Your task to perform on an android device: turn vacation reply on in the gmail app Image 0: 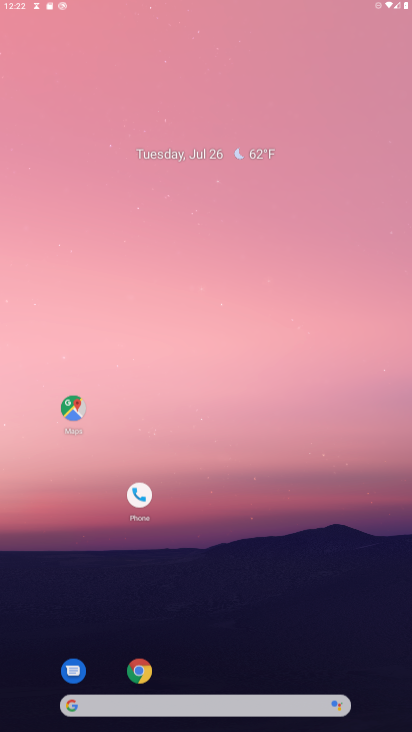
Step 0: press home button
Your task to perform on an android device: turn vacation reply on in the gmail app Image 1: 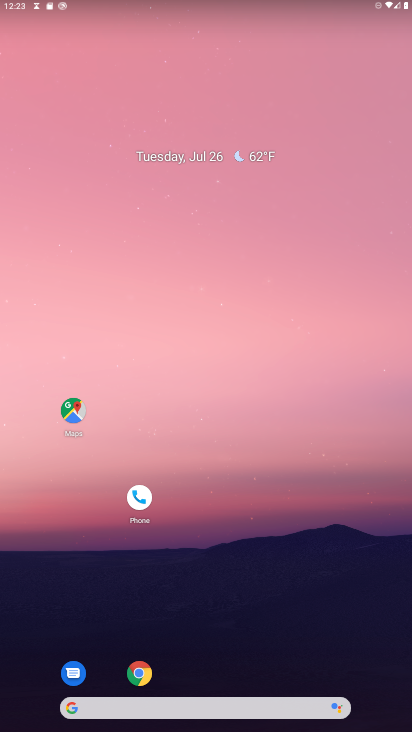
Step 1: drag from (243, 657) to (338, 2)
Your task to perform on an android device: turn vacation reply on in the gmail app Image 2: 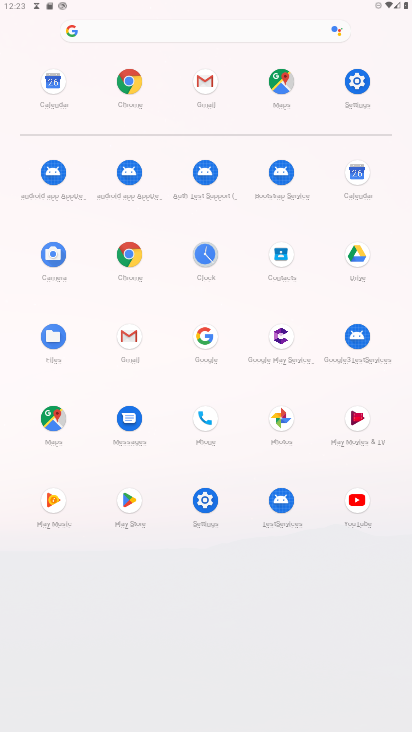
Step 2: click (214, 87)
Your task to perform on an android device: turn vacation reply on in the gmail app Image 3: 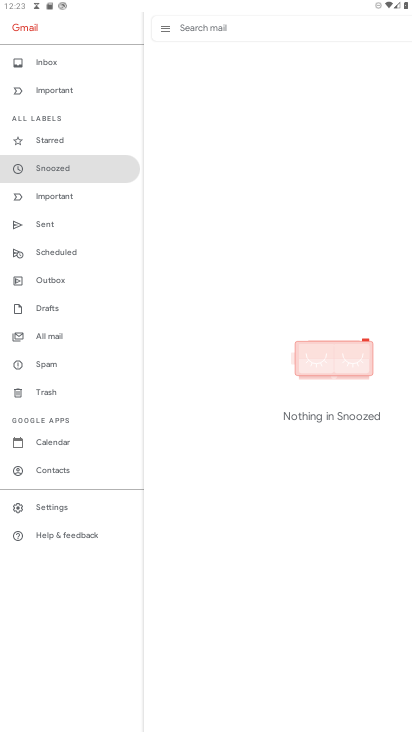
Step 3: click (50, 509)
Your task to perform on an android device: turn vacation reply on in the gmail app Image 4: 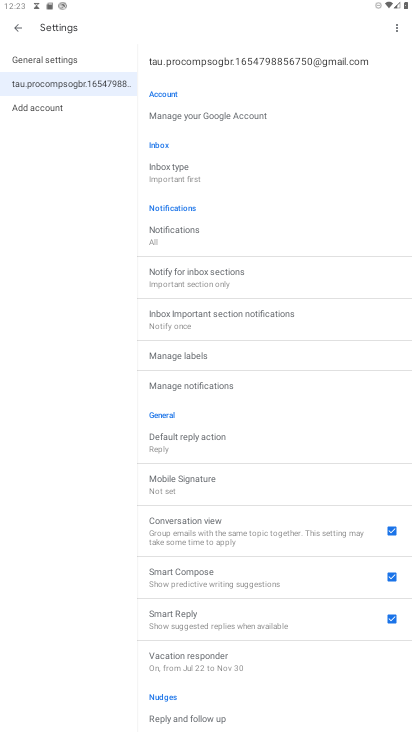
Step 4: click (213, 660)
Your task to perform on an android device: turn vacation reply on in the gmail app Image 5: 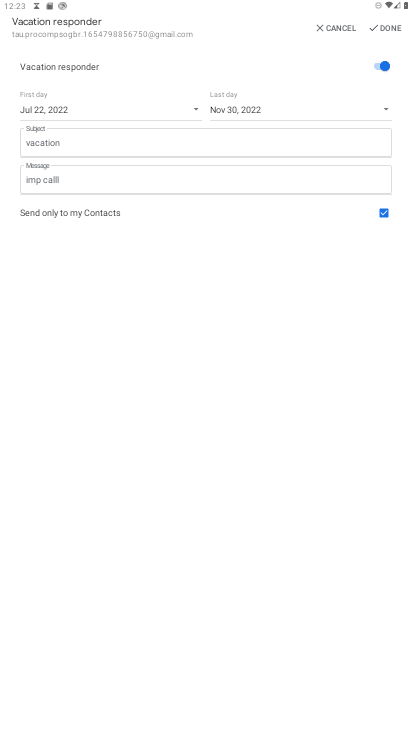
Step 5: task complete